Your task to perform on an android device: add a label to a message in the gmail app Image 0: 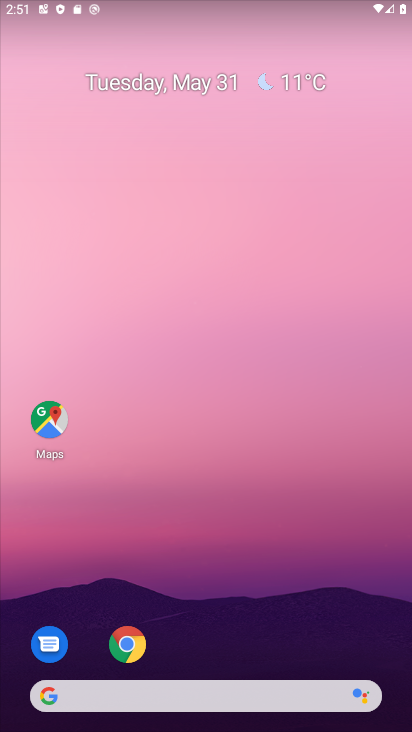
Step 0: drag from (236, 659) to (253, 84)
Your task to perform on an android device: add a label to a message in the gmail app Image 1: 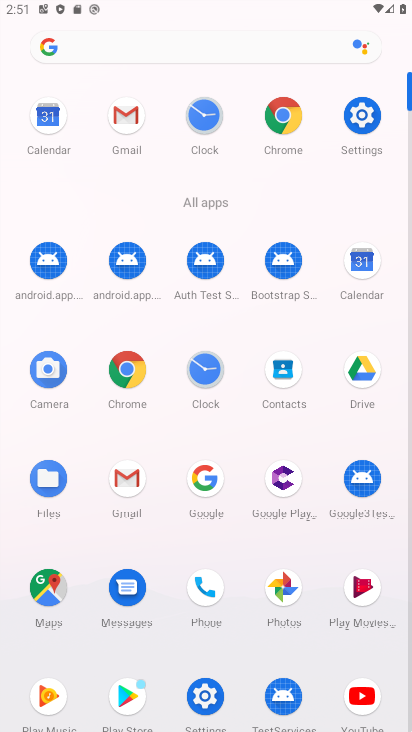
Step 1: click (125, 471)
Your task to perform on an android device: add a label to a message in the gmail app Image 2: 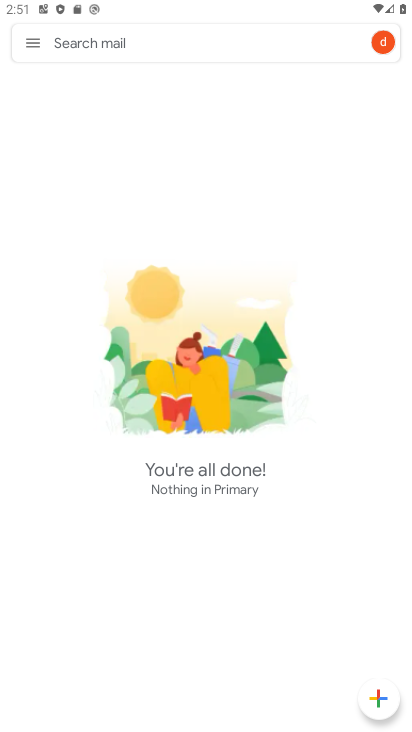
Step 2: click (28, 32)
Your task to perform on an android device: add a label to a message in the gmail app Image 3: 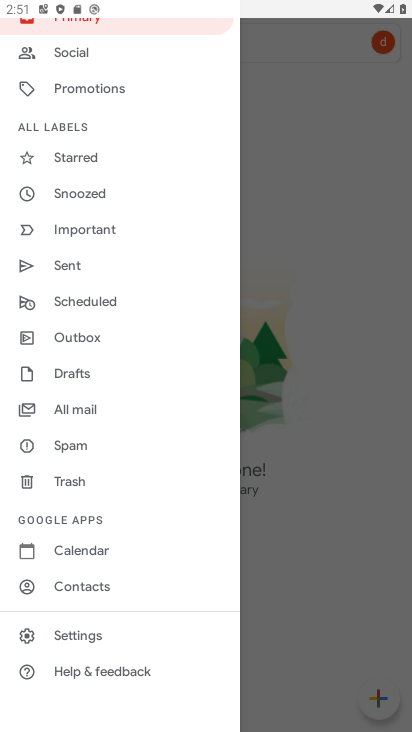
Step 3: click (66, 409)
Your task to perform on an android device: add a label to a message in the gmail app Image 4: 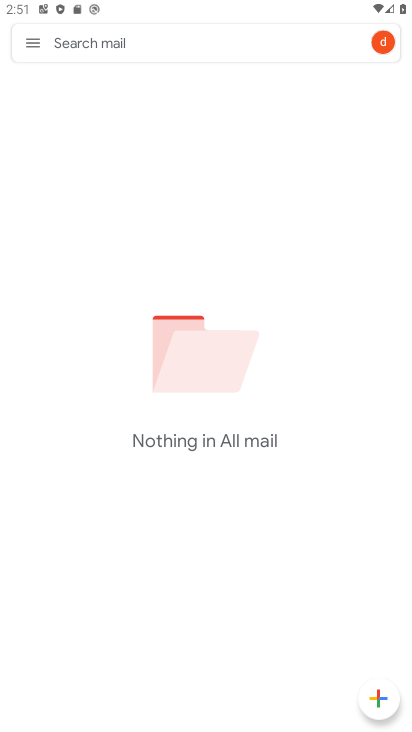
Step 4: task complete